Your task to perform on an android device: toggle translation in the chrome app Image 0: 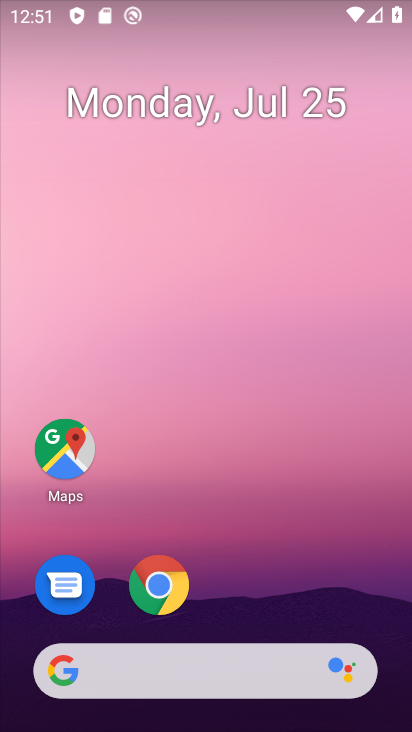
Step 0: click (155, 573)
Your task to perform on an android device: toggle translation in the chrome app Image 1: 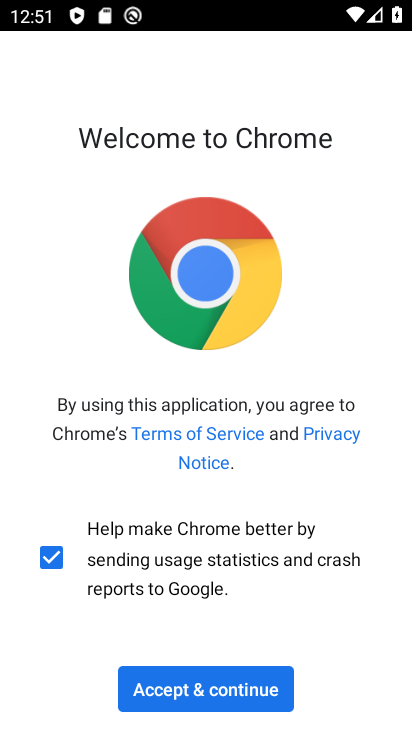
Step 1: click (253, 688)
Your task to perform on an android device: toggle translation in the chrome app Image 2: 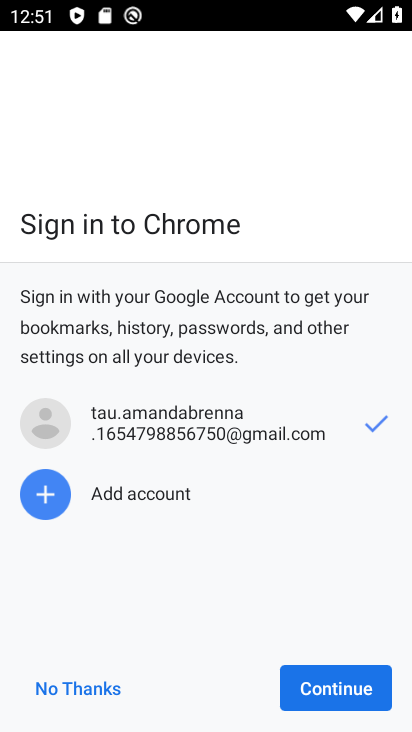
Step 2: click (316, 698)
Your task to perform on an android device: toggle translation in the chrome app Image 3: 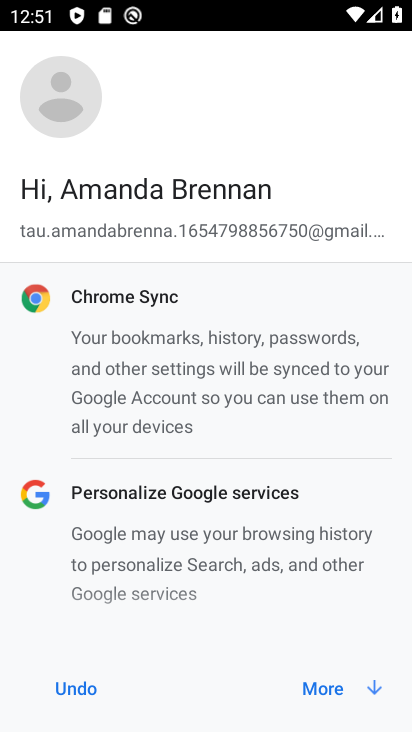
Step 3: click (326, 690)
Your task to perform on an android device: toggle translation in the chrome app Image 4: 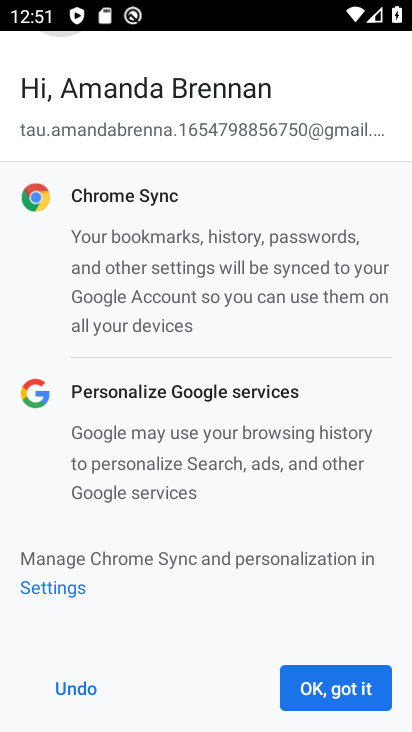
Step 4: click (329, 693)
Your task to perform on an android device: toggle translation in the chrome app Image 5: 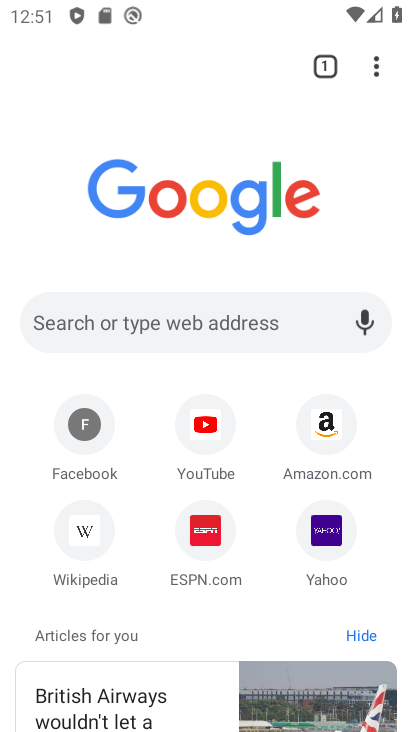
Step 5: click (375, 72)
Your task to perform on an android device: toggle translation in the chrome app Image 6: 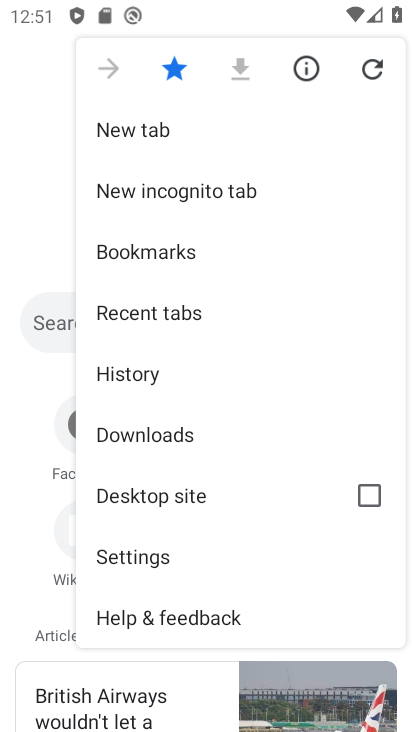
Step 6: click (169, 557)
Your task to perform on an android device: toggle translation in the chrome app Image 7: 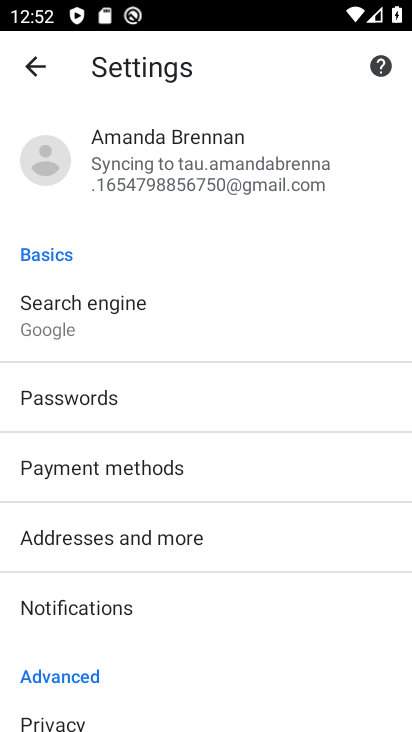
Step 7: drag from (251, 604) to (285, 0)
Your task to perform on an android device: toggle translation in the chrome app Image 8: 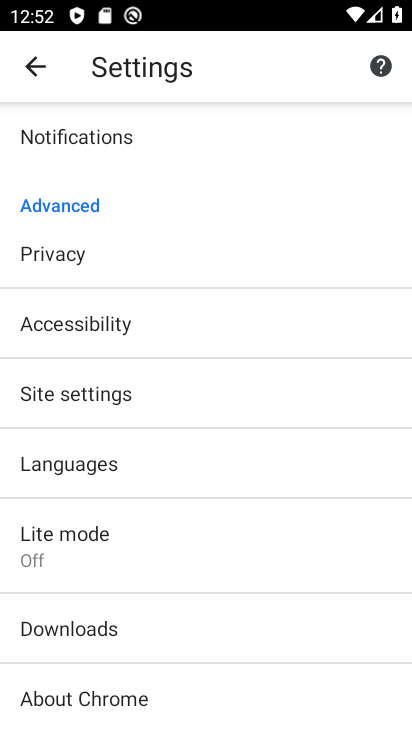
Step 8: drag from (248, 612) to (270, 391)
Your task to perform on an android device: toggle translation in the chrome app Image 9: 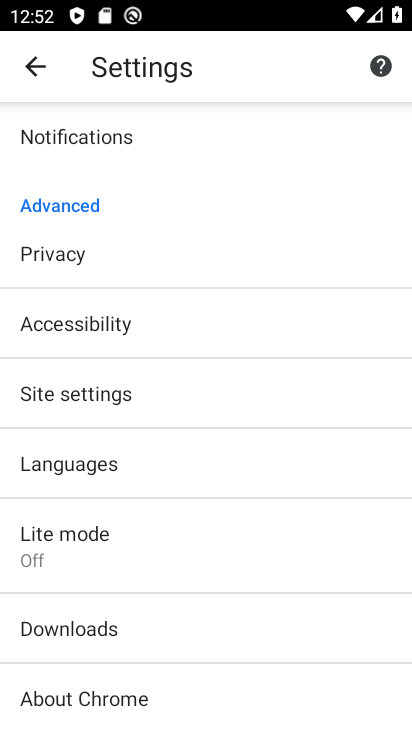
Step 9: click (119, 457)
Your task to perform on an android device: toggle translation in the chrome app Image 10: 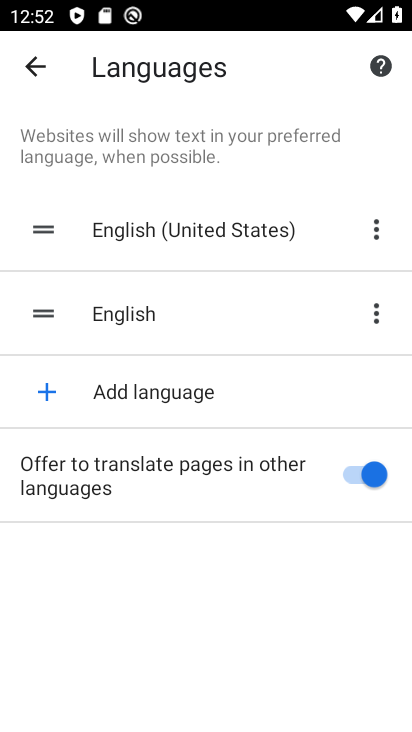
Step 10: click (362, 471)
Your task to perform on an android device: toggle translation in the chrome app Image 11: 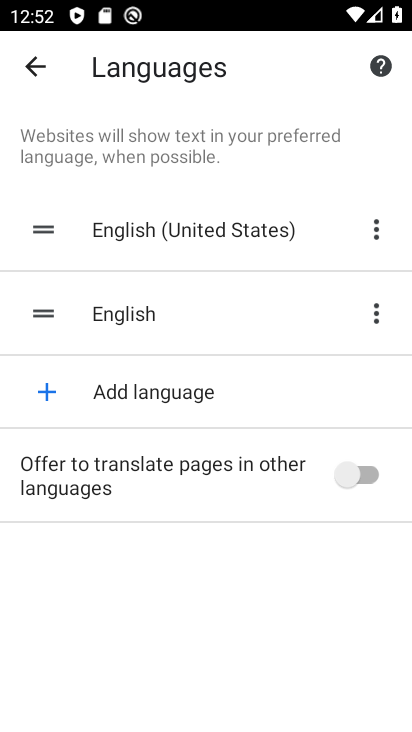
Step 11: task complete